Your task to perform on an android device: toggle location history Image 0: 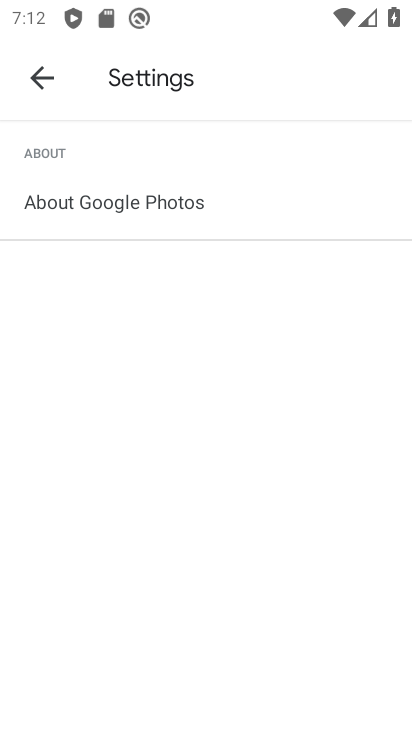
Step 0: click (372, 392)
Your task to perform on an android device: toggle location history Image 1: 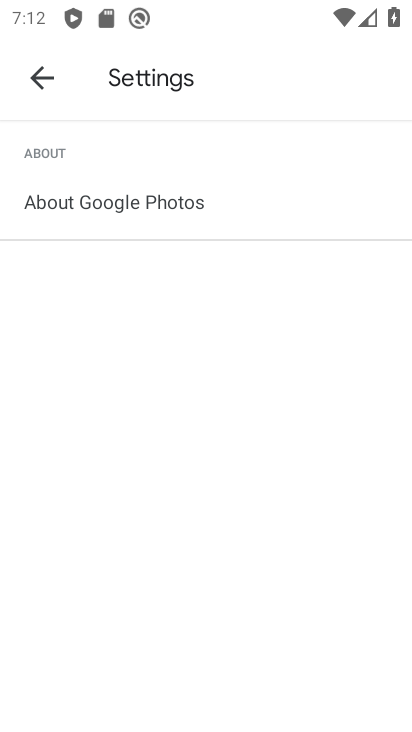
Step 1: drag from (217, 665) to (236, 566)
Your task to perform on an android device: toggle location history Image 2: 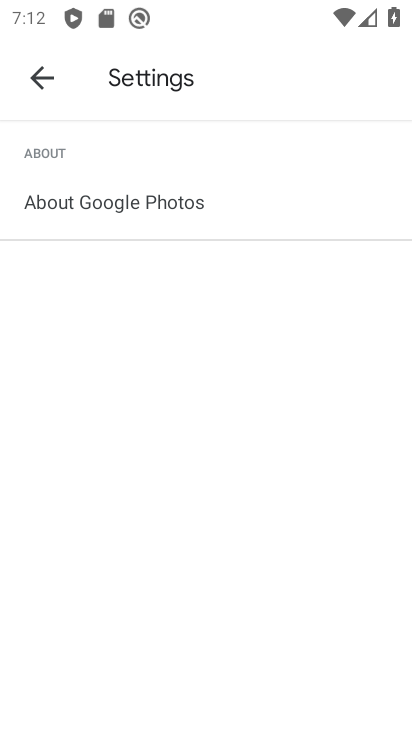
Step 2: press home button
Your task to perform on an android device: toggle location history Image 3: 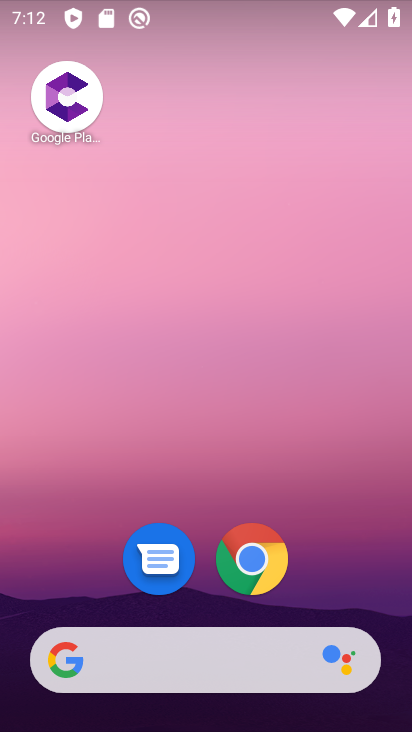
Step 3: drag from (302, 581) to (164, 3)
Your task to perform on an android device: toggle location history Image 4: 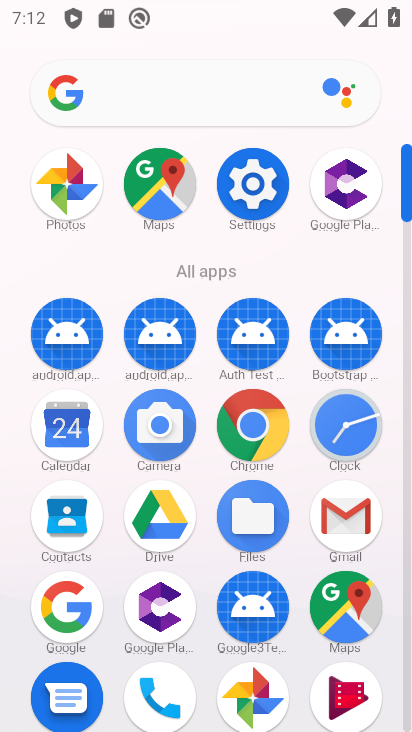
Step 4: click (254, 176)
Your task to perform on an android device: toggle location history Image 5: 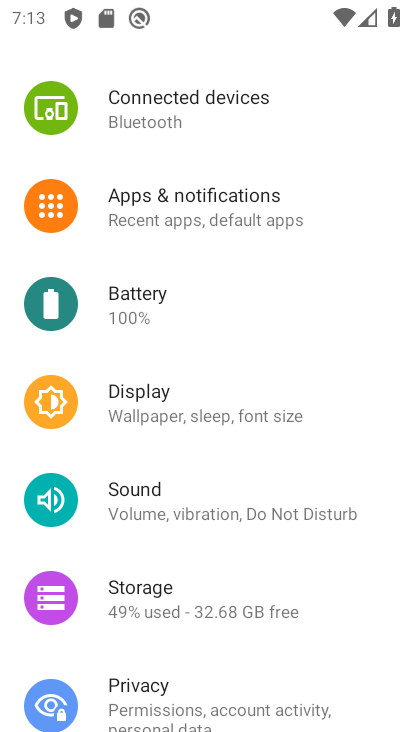
Step 5: drag from (226, 632) to (211, 287)
Your task to perform on an android device: toggle location history Image 6: 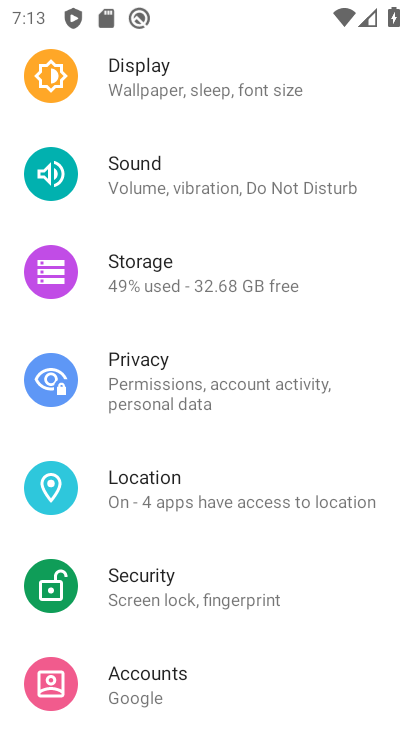
Step 6: click (226, 433)
Your task to perform on an android device: toggle location history Image 7: 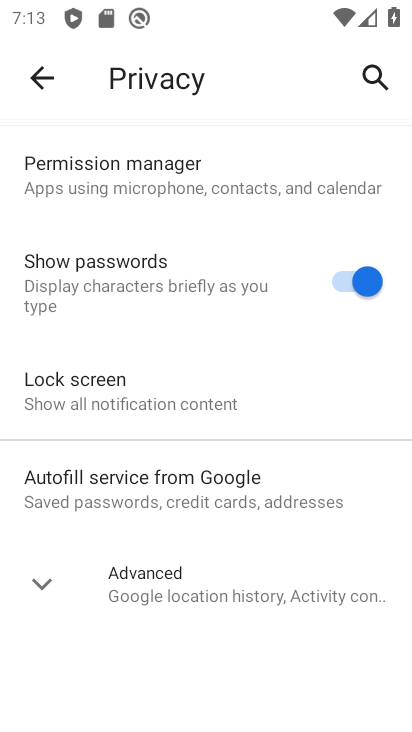
Step 7: click (41, 80)
Your task to perform on an android device: toggle location history Image 8: 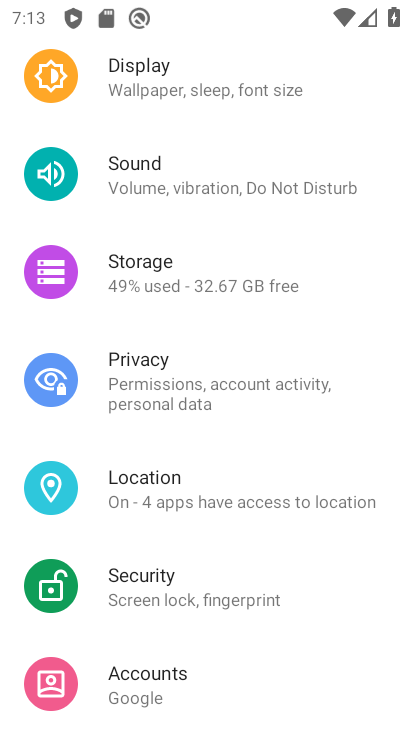
Step 8: click (156, 492)
Your task to perform on an android device: toggle location history Image 9: 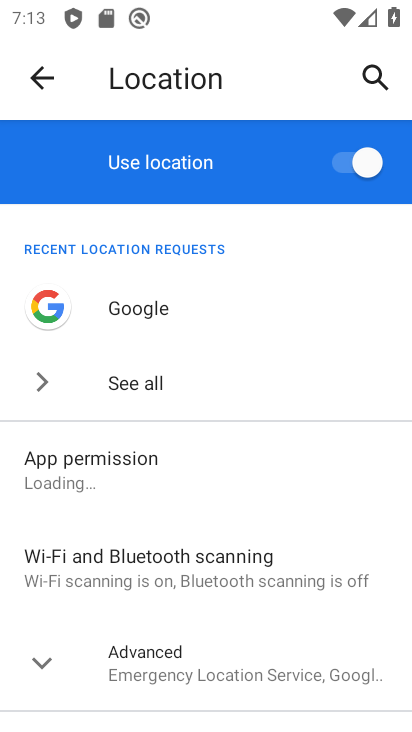
Step 9: click (170, 682)
Your task to perform on an android device: toggle location history Image 10: 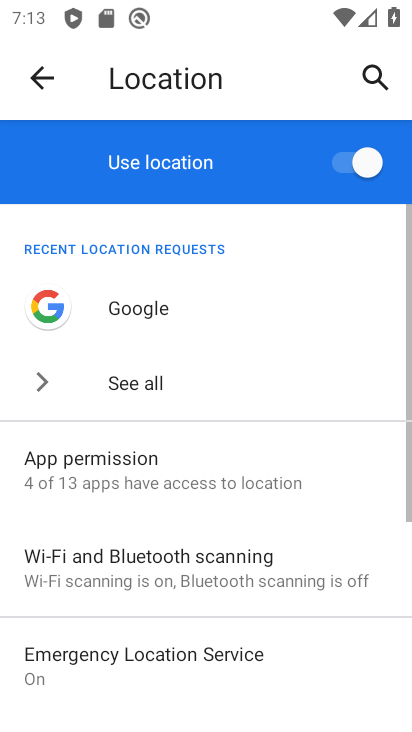
Step 10: drag from (171, 678) to (219, 226)
Your task to perform on an android device: toggle location history Image 11: 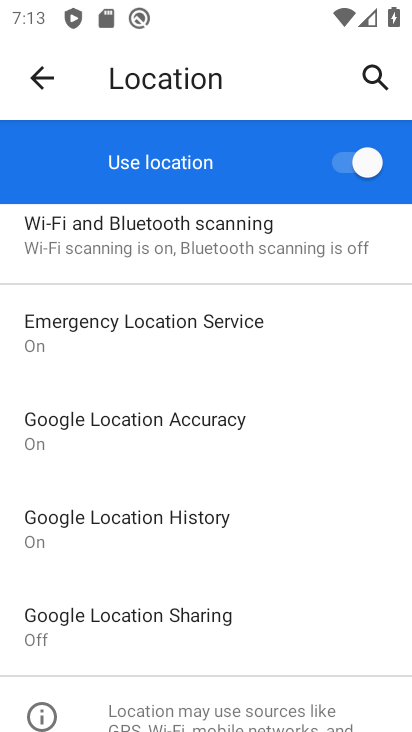
Step 11: click (182, 523)
Your task to perform on an android device: toggle location history Image 12: 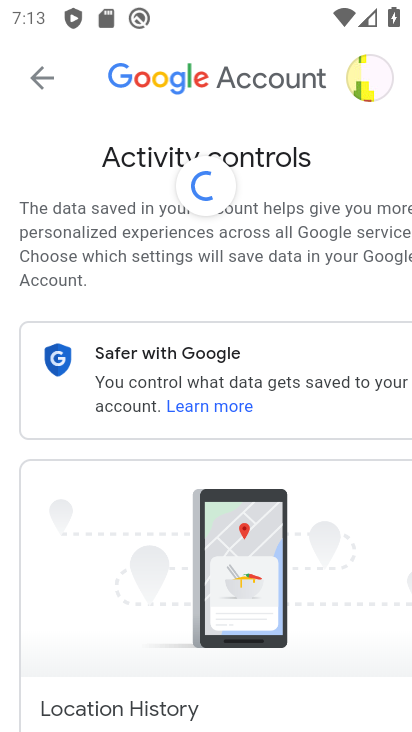
Step 12: drag from (343, 288) to (373, 199)
Your task to perform on an android device: toggle location history Image 13: 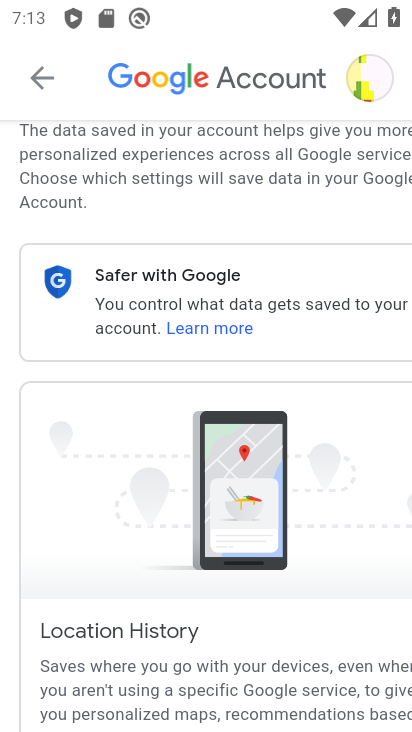
Step 13: drag from (247, 687) to (237, 292)
Your task to perform on an android device: toggle location history Image 14: 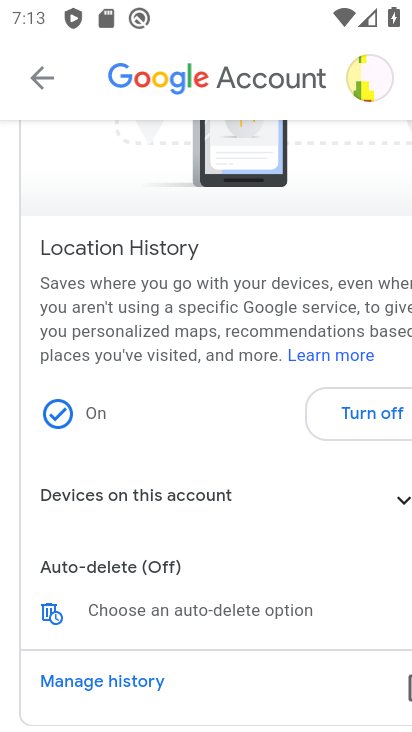
Step 14: click (348, 415)
Your task to perform on an android device: toggle location history Image 15: 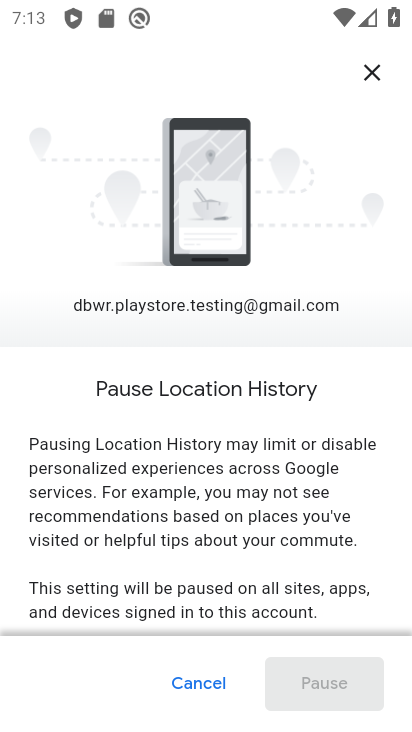
Step 15: drag from (214, 579) to (217, 90)
Your task to perform on an android device: toggle location history Image 16: 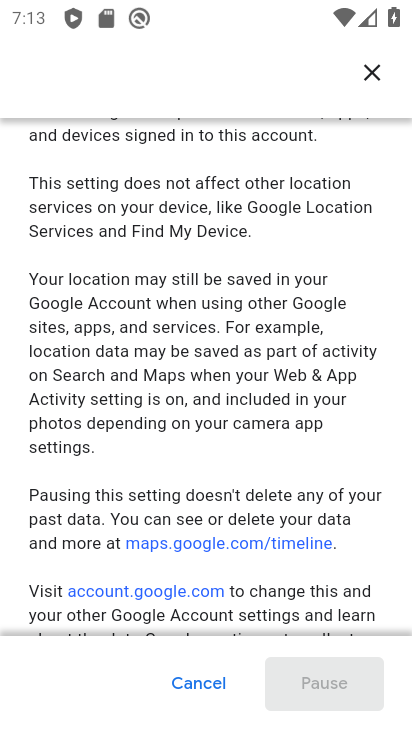
Step 16: drag from (235, 600) to (298, 172)
Your task to perform on an android device: toggle location history Image 17: 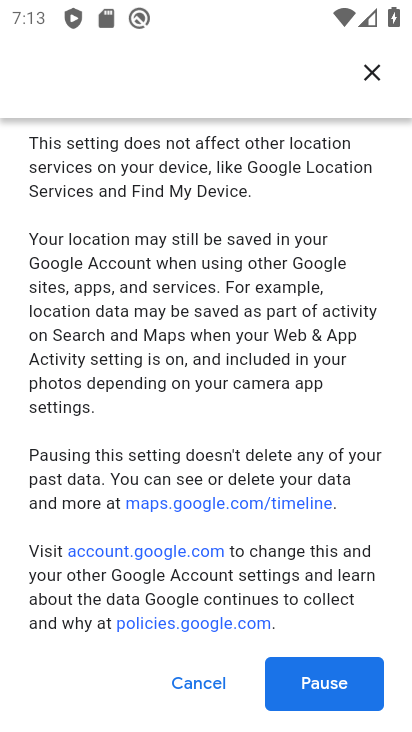
Step 17: click (296, 696)
Your task to perform on an android device: toggle location history Image 18: 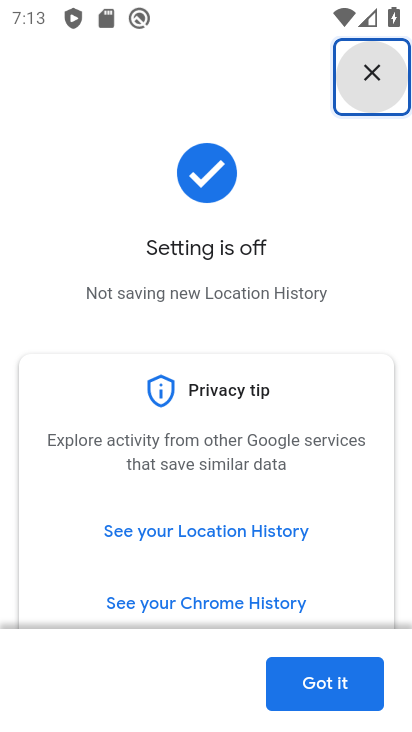
Step 18: click (296, 696)
Your task to perform on an android device: toggle location history Image 19: 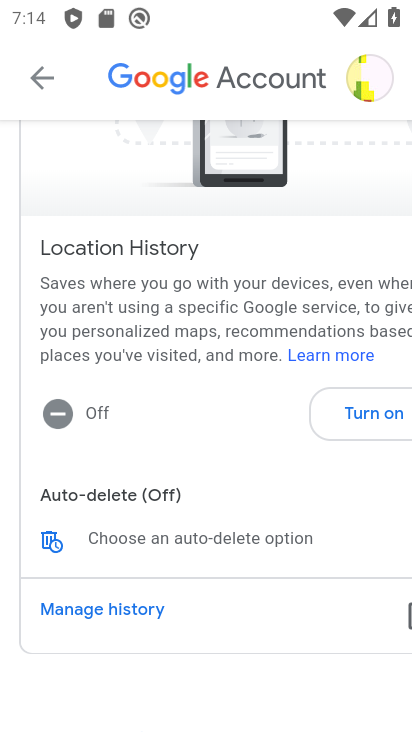
Step 19: task complete